Your task to perform on an android device: Search for flights from Zurich to Helsinki Image 0: 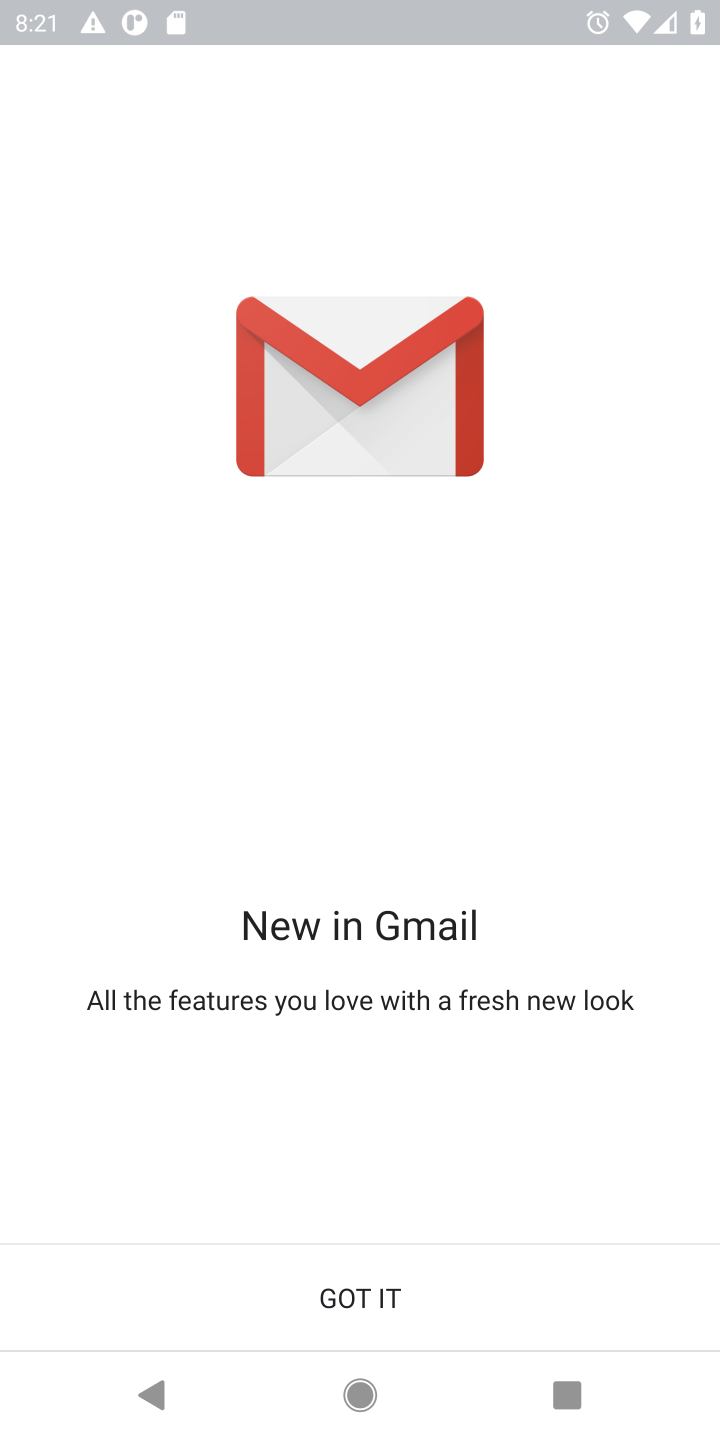
Step 0: press home button
Your task to perform on an android device: Search for flights from Zurich to Helsinki Image 1: 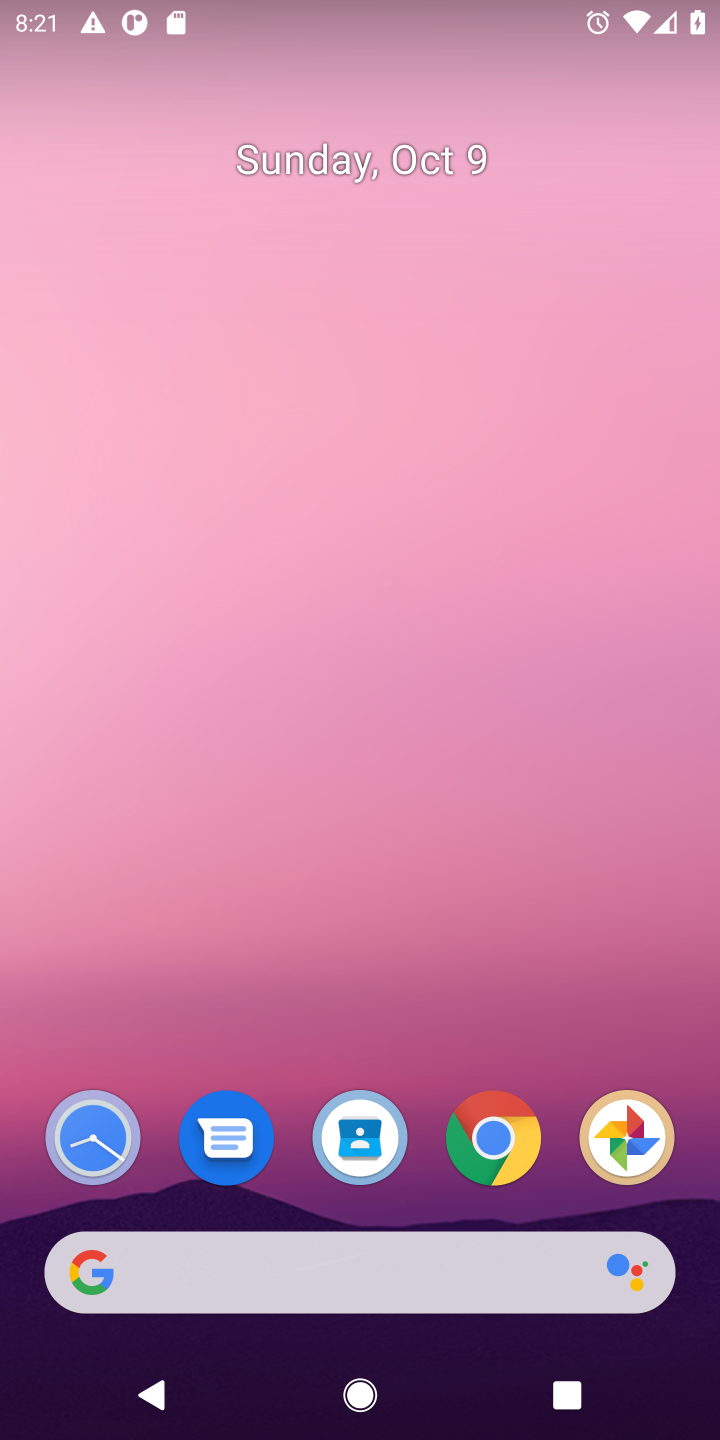
Step 1: drag from (374, 1009) to (370, 684)
Your task to perform on an android device: Search for flights from Zurich to Helsinki Image 2: 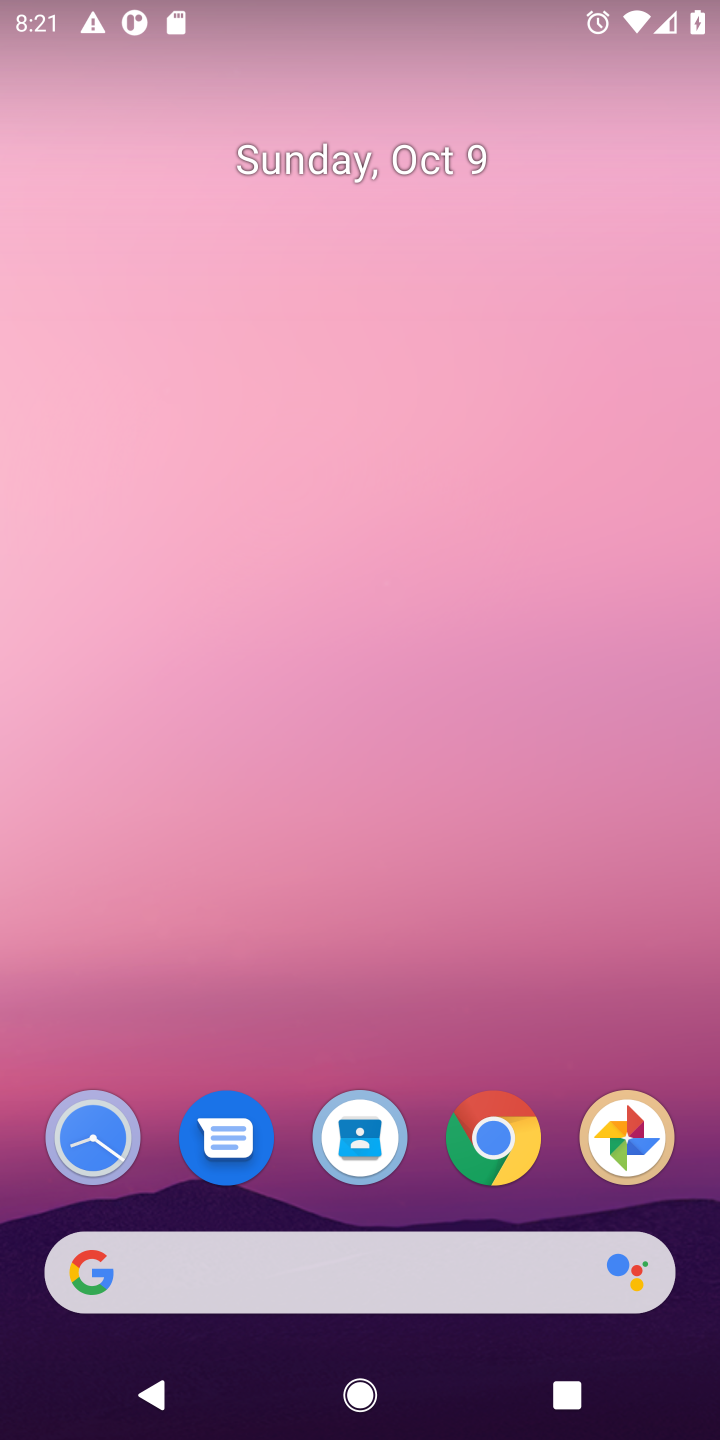
Step 2: drag from (367, 1053) to (372, 456)
Your task to perform on an android device: Search for flights from Zurich to Helsinki Image 3: 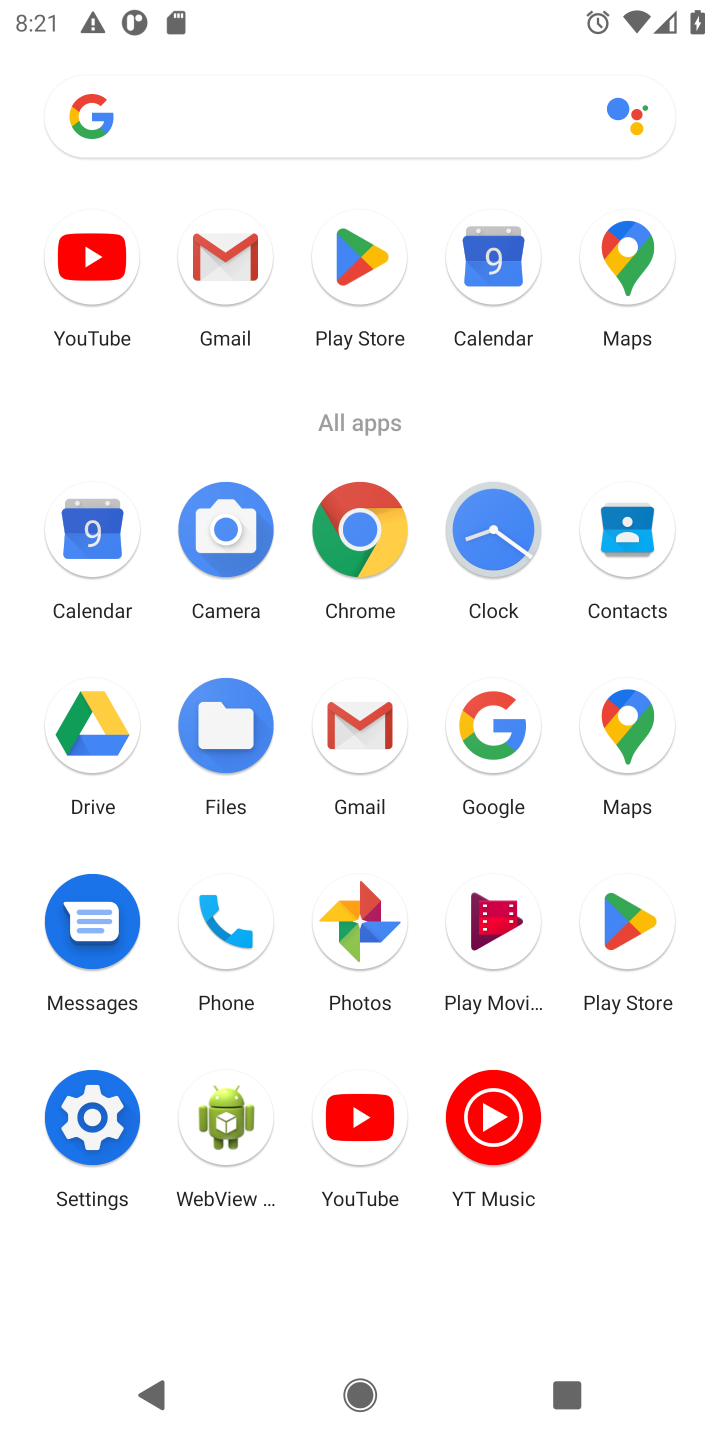
Step 3: click (484, 743)
Your task to perform on an android device: Search for flights from Zurich to Helsinki Image 4: 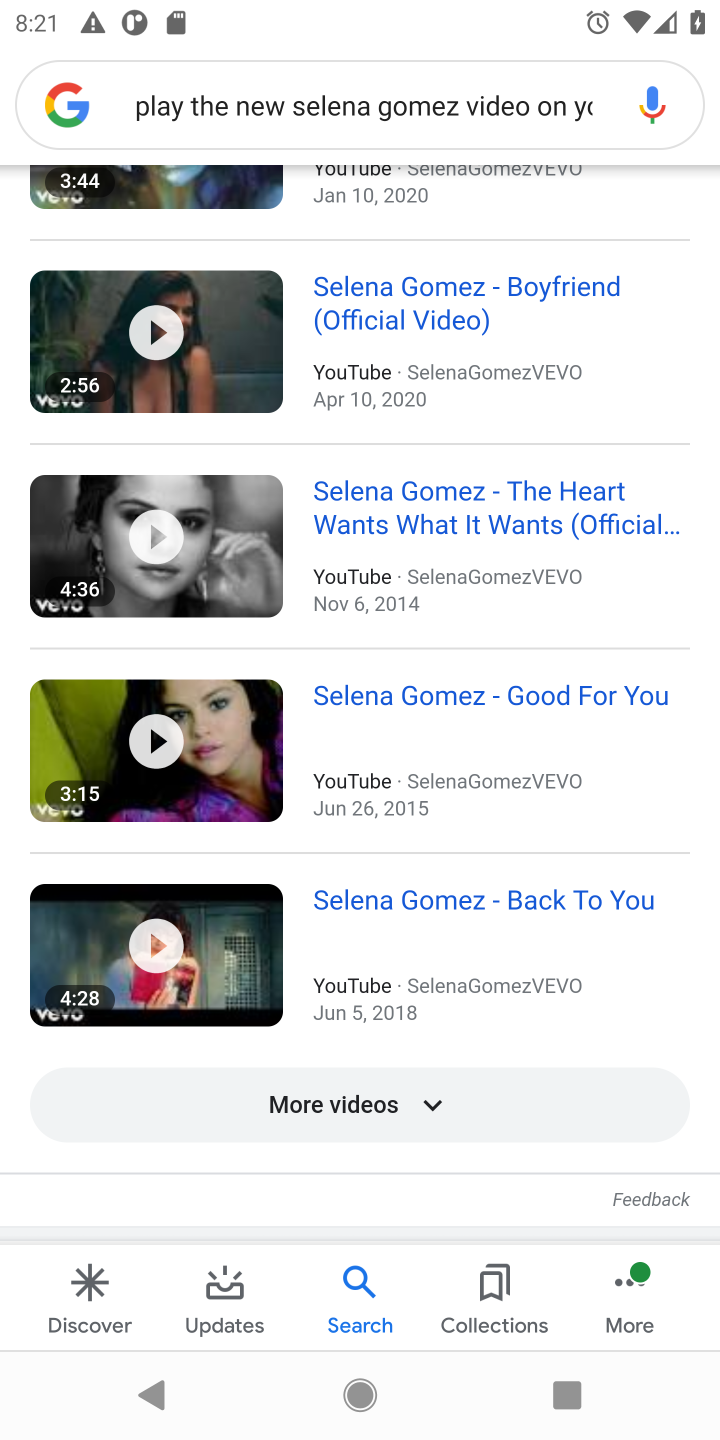
Step 4: click (490, 110)
Your task to perform on an android device: Search for flights from Zurich to Helsinki Image 5: 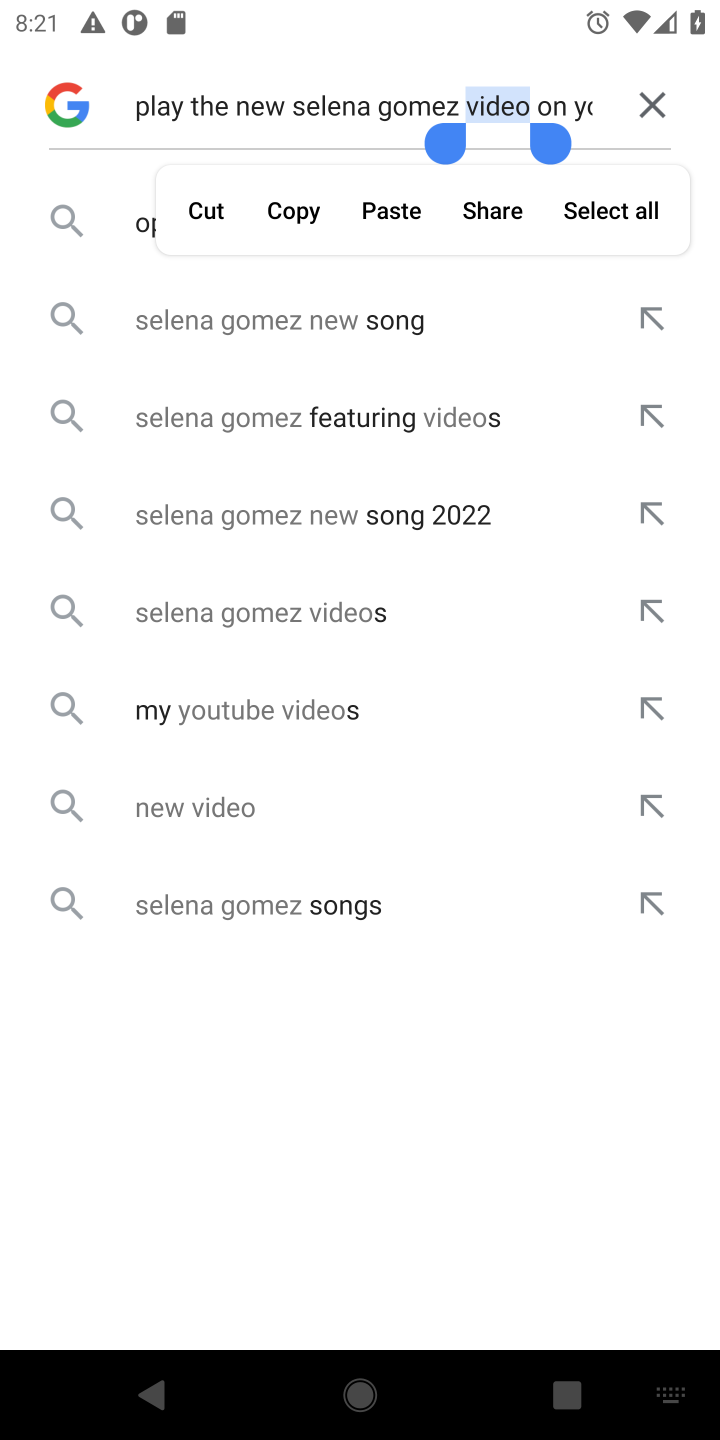
Step 5: click (633, 107)
Your task to perform on an android device: Search for flights from Zurich to Helsinki Image 6: 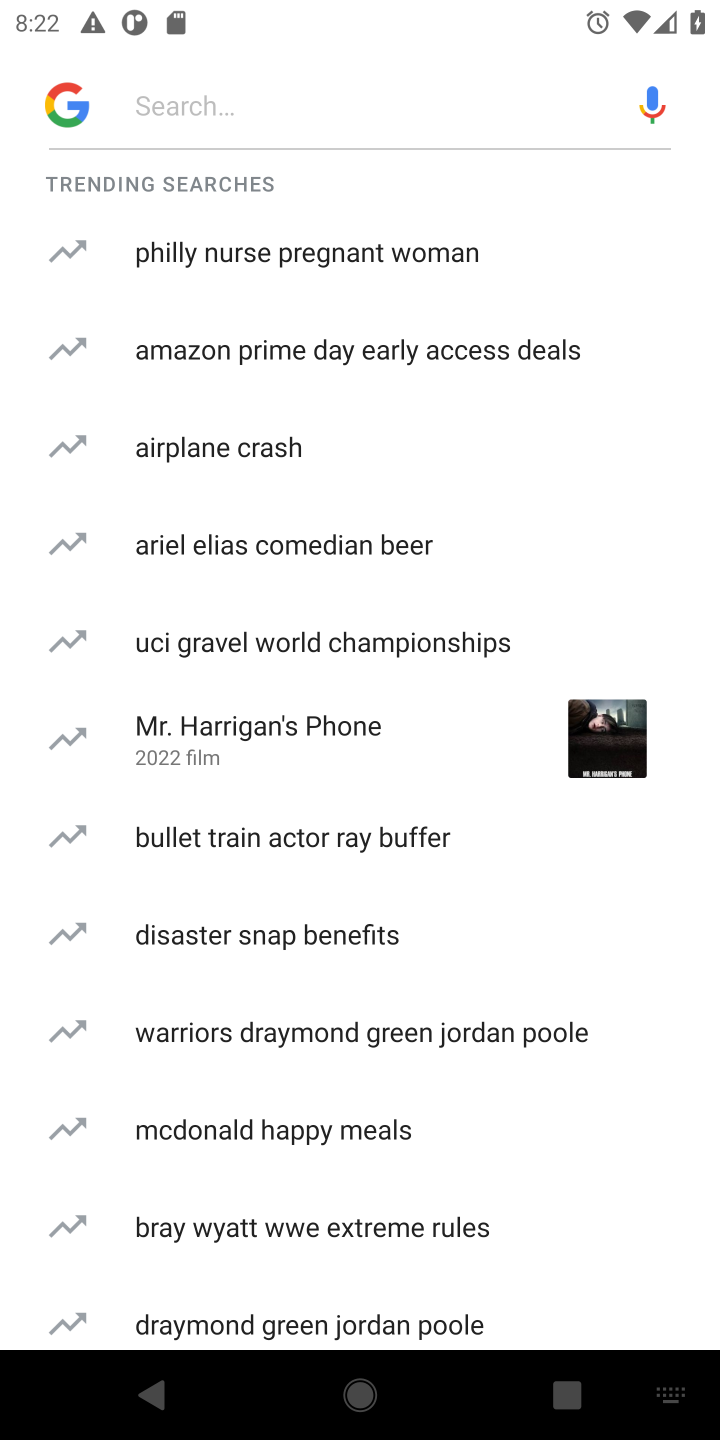
Step 6: click (302, 87)
Your task to perform on an android device: Search for flights from Zurich to Helsinki Image 7: 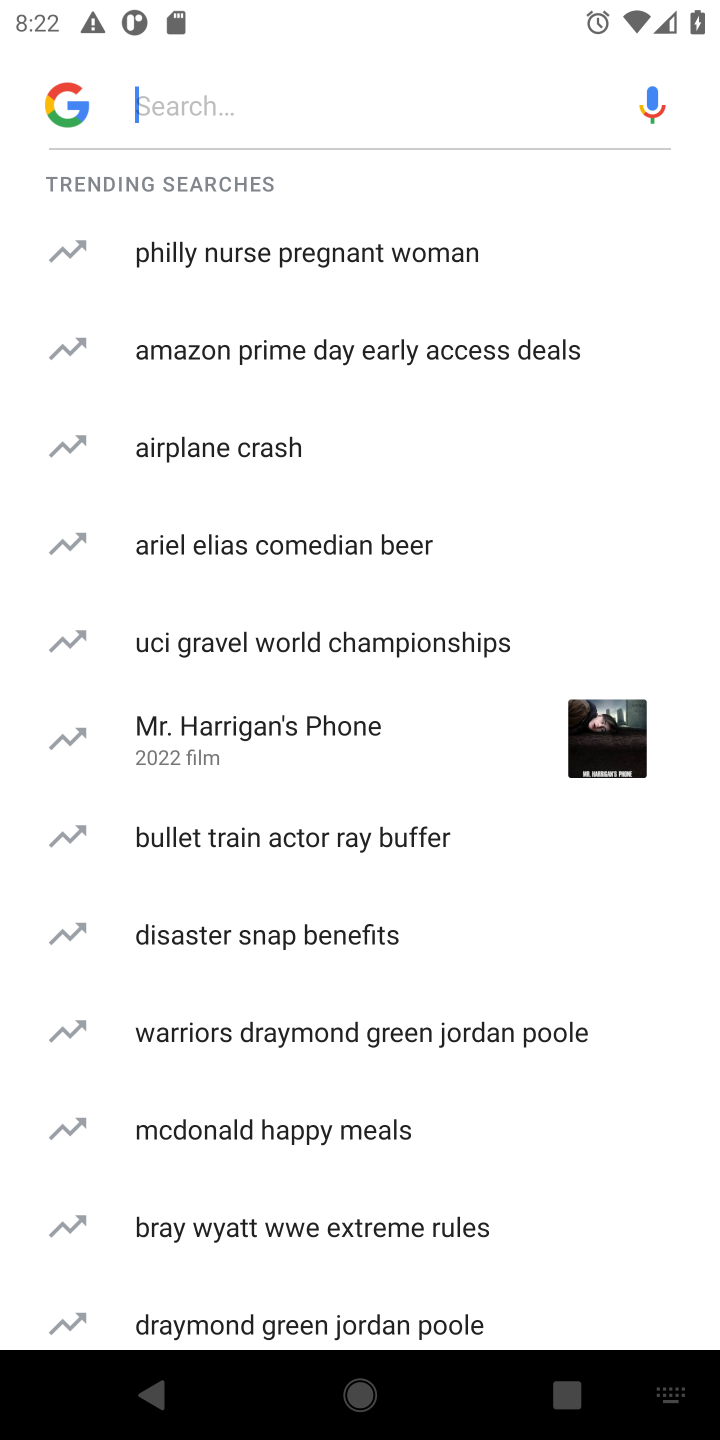
Step 7: type "Search for flights from Zurich to Helsinki "
Your task to perform on an android device: Search for flights from Zurich to Helsinki Image 8: 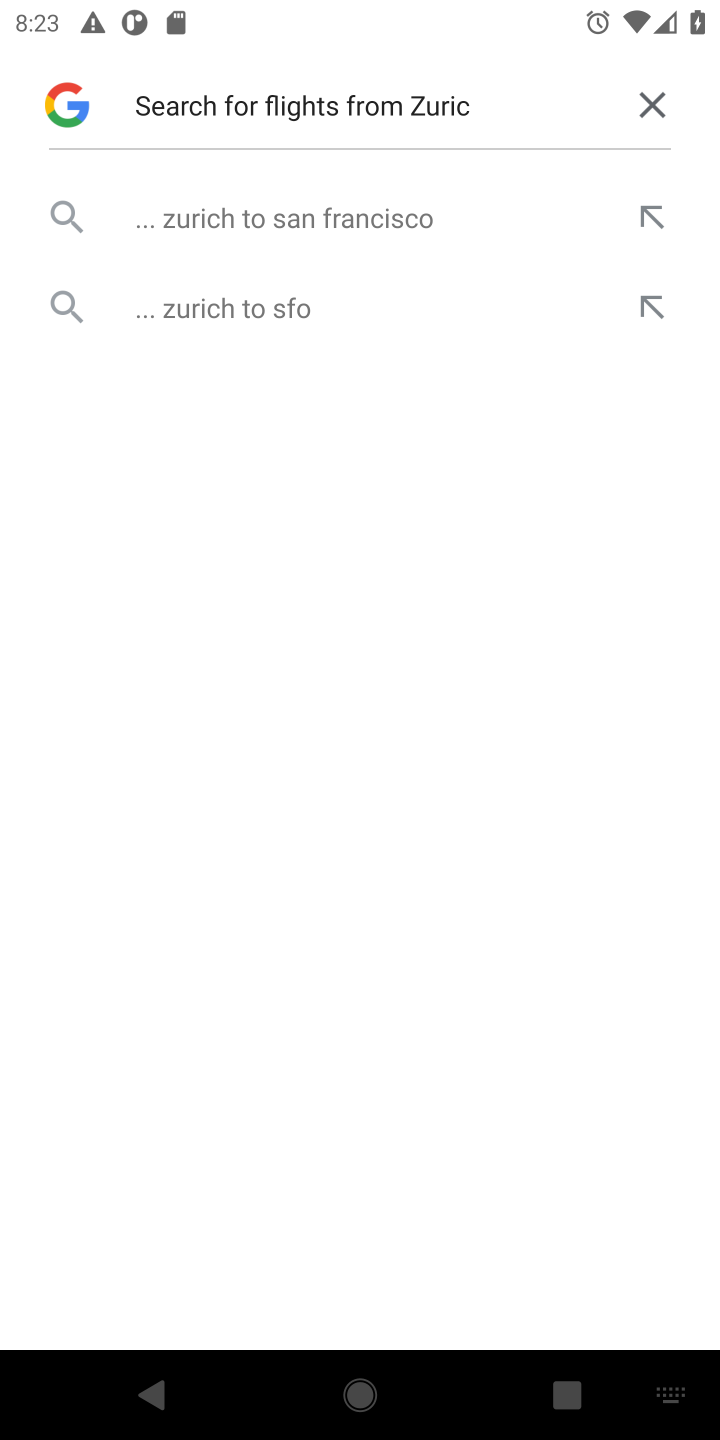
Step 8: click (666, 97)
Your task to perform on an android device: Search for flights from Zurich to Helsinki Image 9: 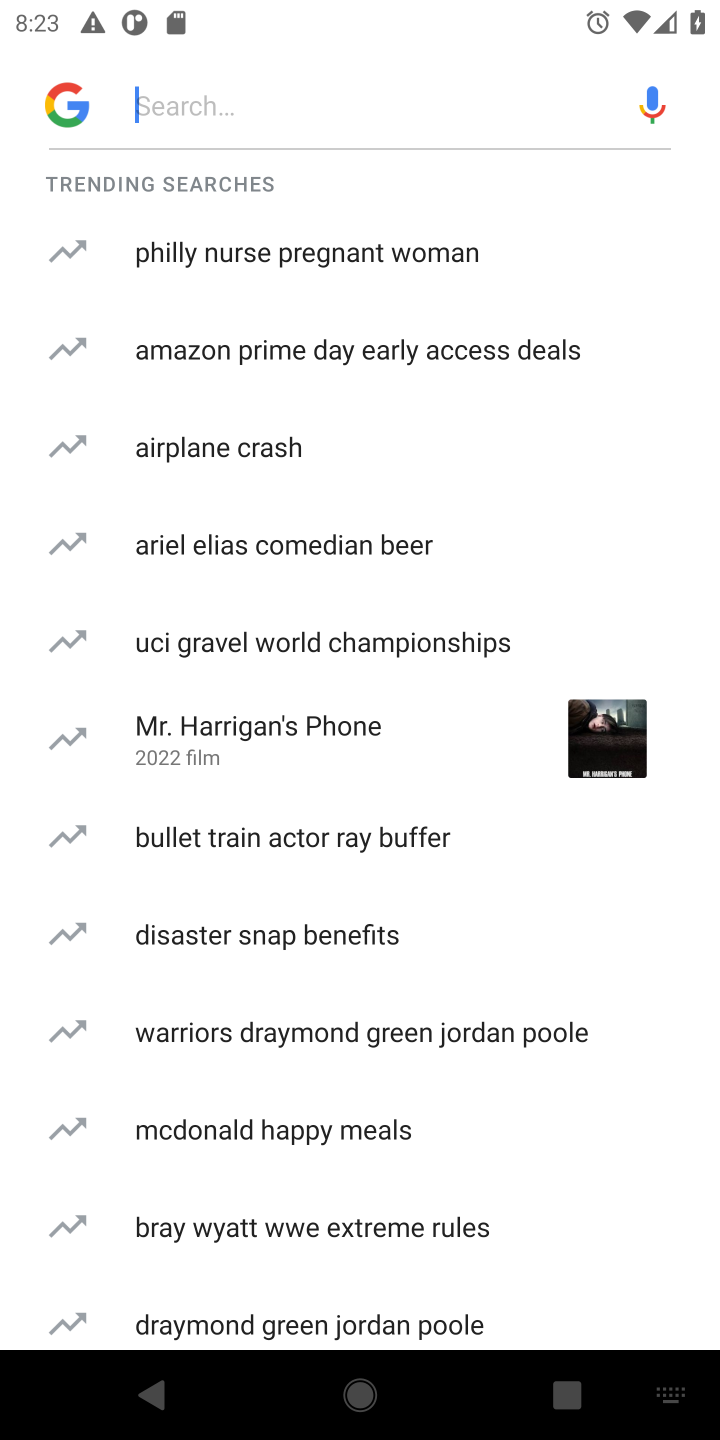
Step 9: click (321, 104)
Your task to perform on an android device: Search for flights from Zurich to Helsinki Image 10: 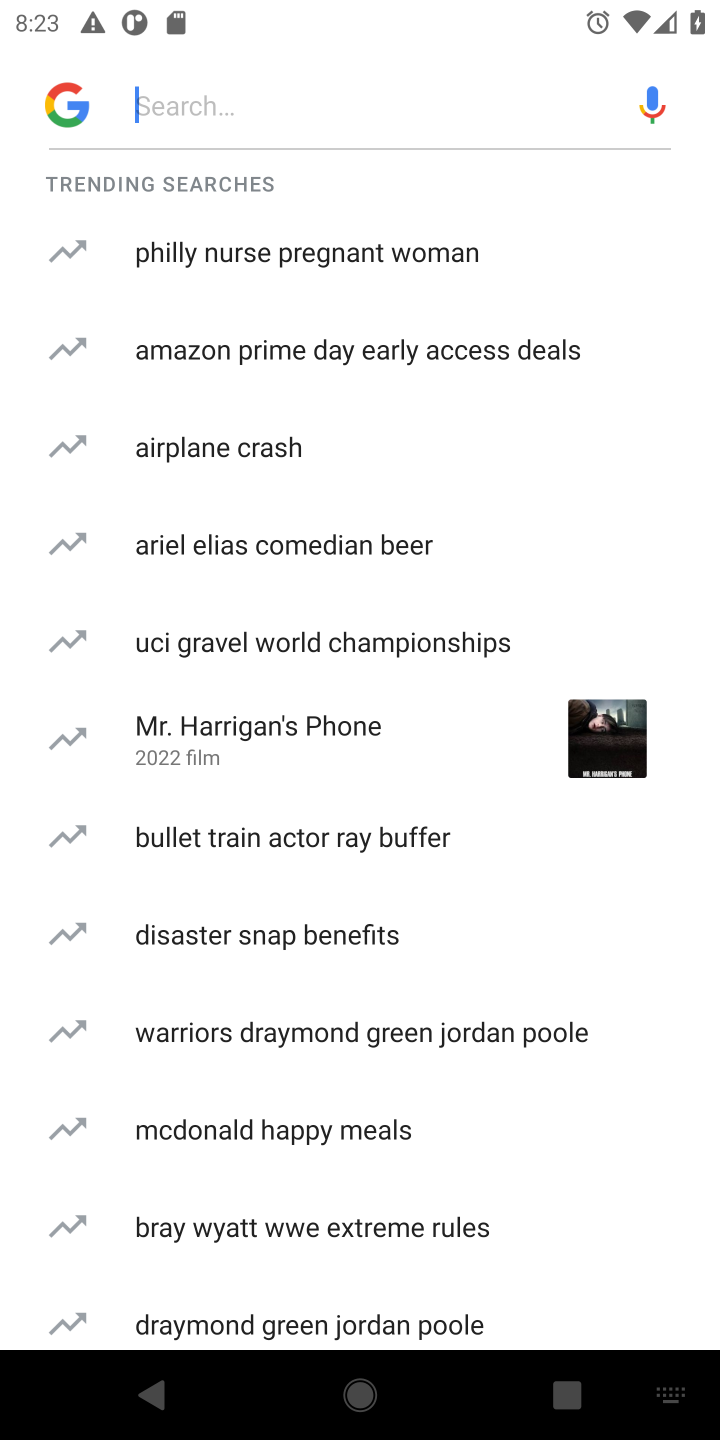
Step 10: type "Search for flights from Zurich to Helsinki "
Your task to perform on an android device: Search for flights from Zurich to Helsinki Image 11: 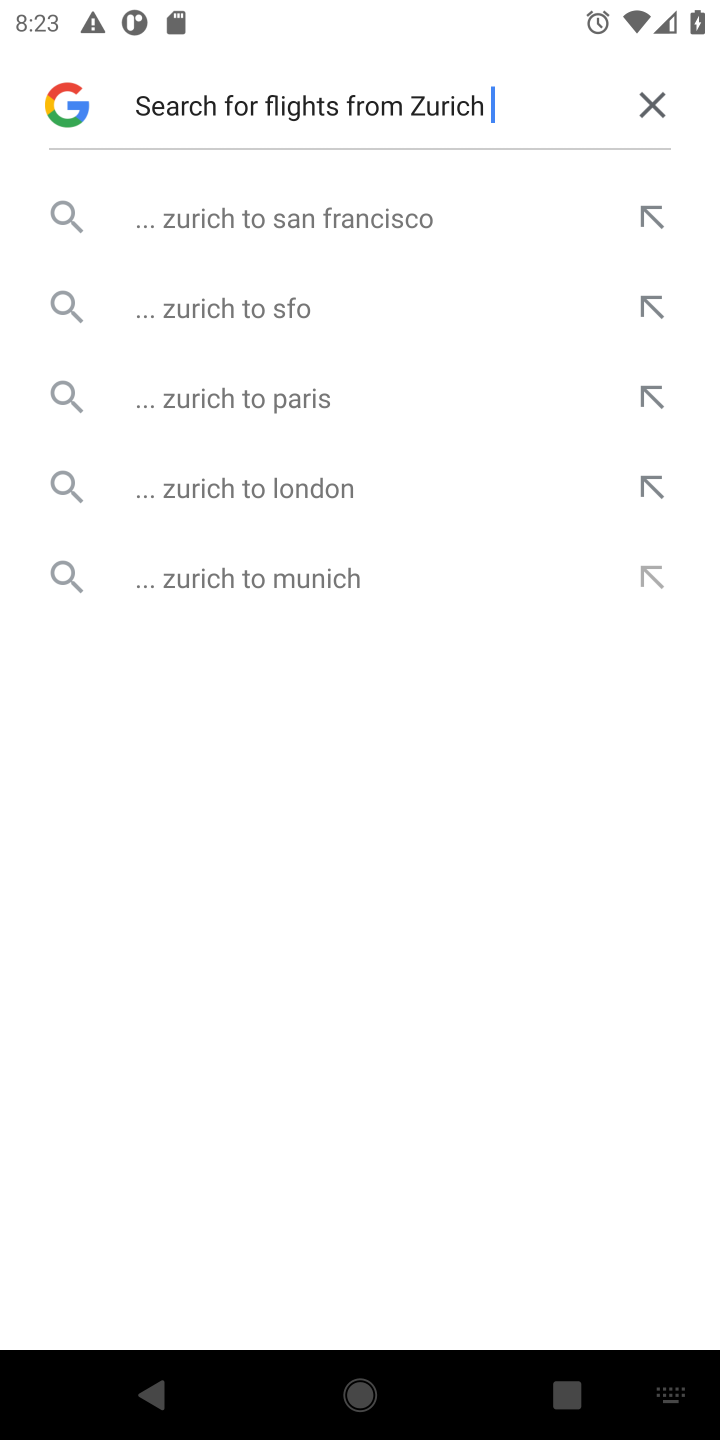
Step 11: click (344, 220)
Your task to perform on an android device: Search for flights from Zurich to Helsinki Image 12: 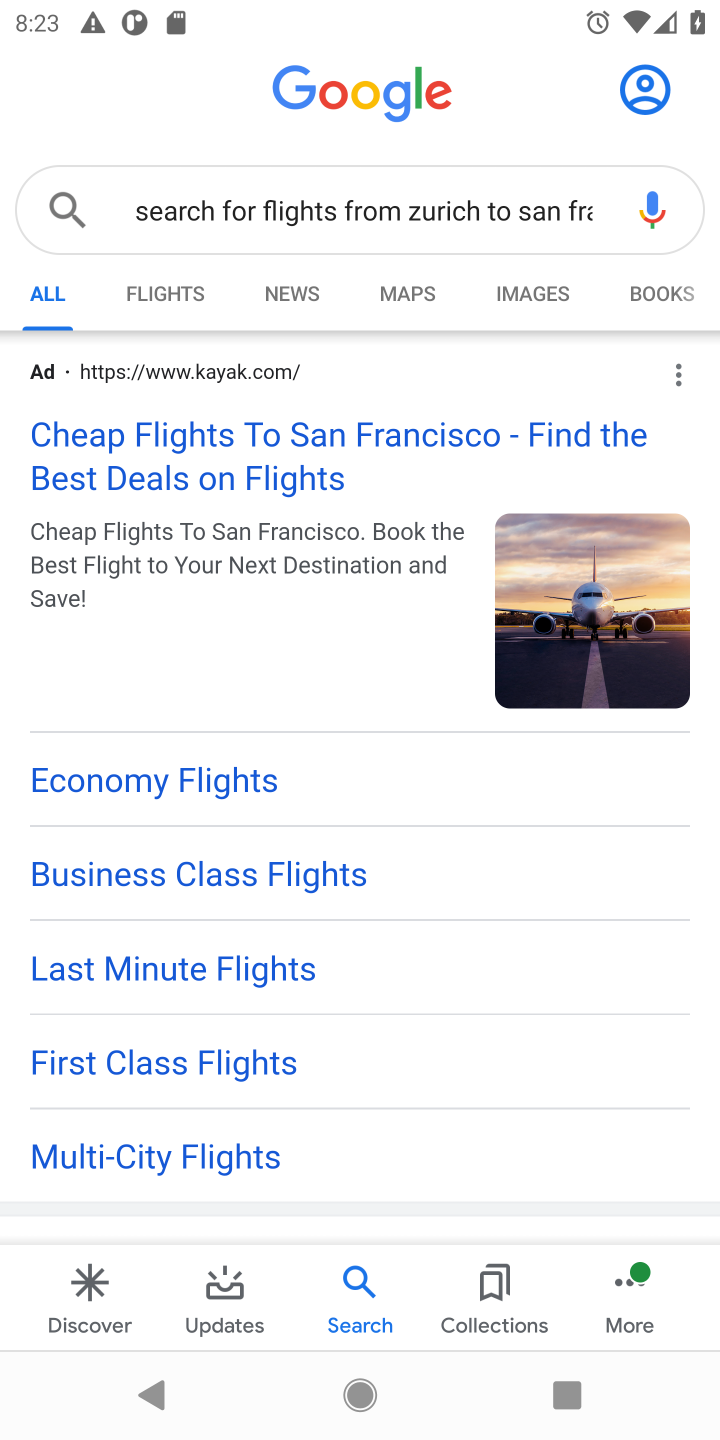
Step 12: drag from (415, 1110) to (459, 491)
Your task to perform on an android device: Search for flights from Zurich to Helsinki Image 13: 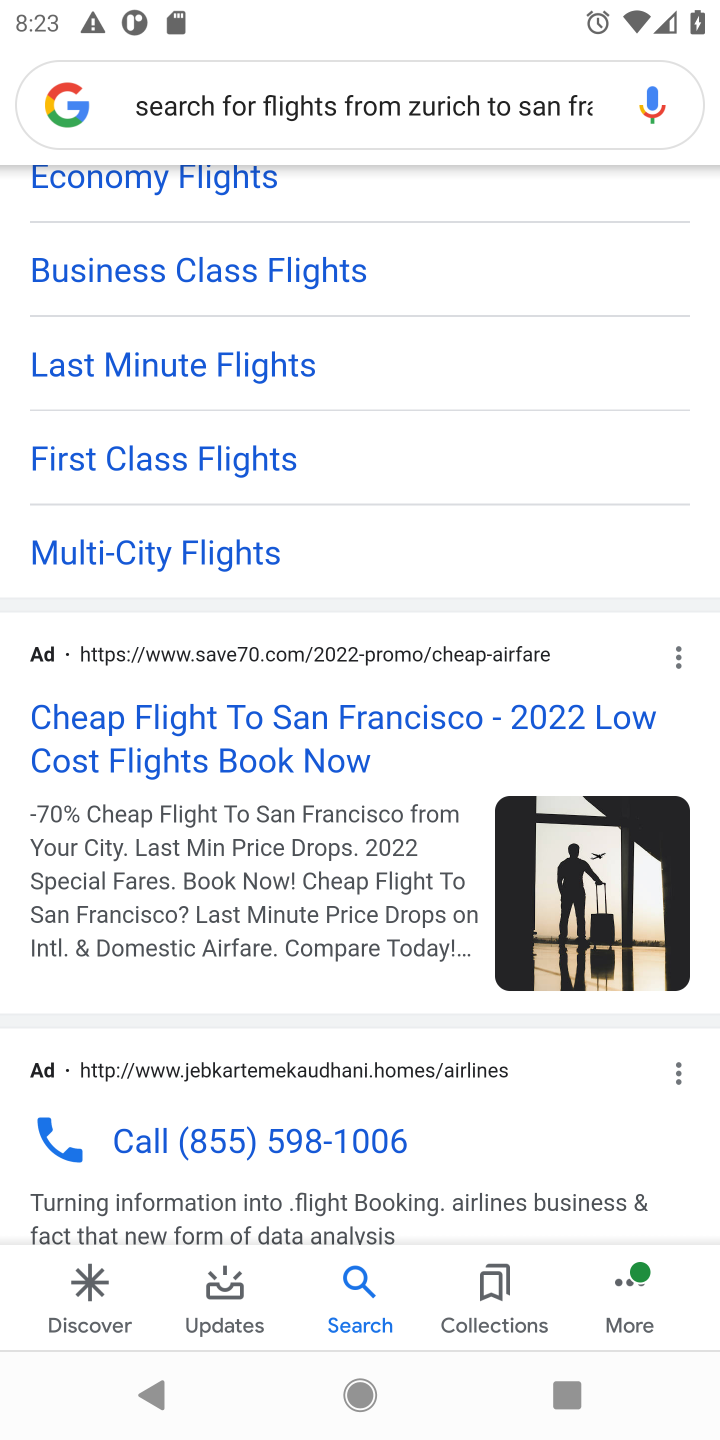
Step 13: click (536, 102)
Your task to perform on an android device: Search for flights from Zurich to Helsinki Image 14: 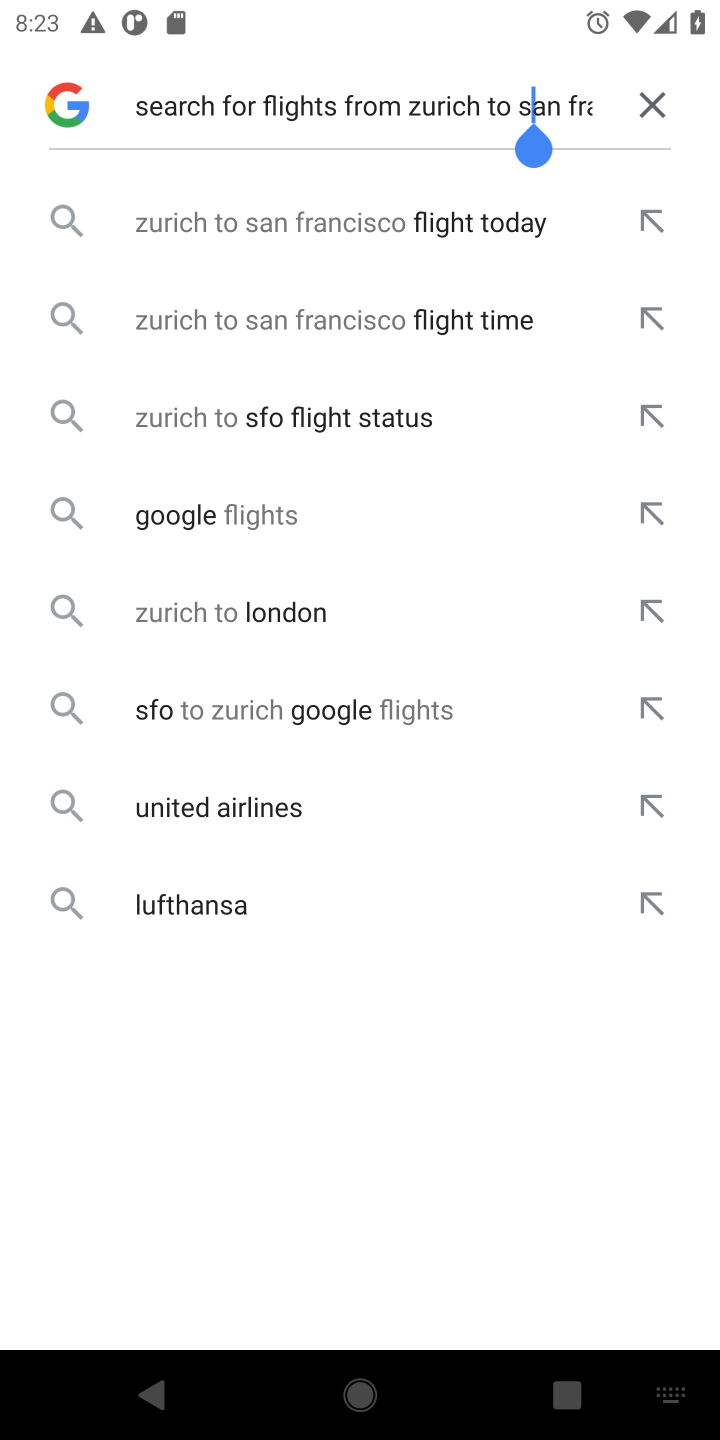
Step 14: click (639, 102)
Your task to perform on an android device: Search for flights from Zurich to Helsinki Image 15: 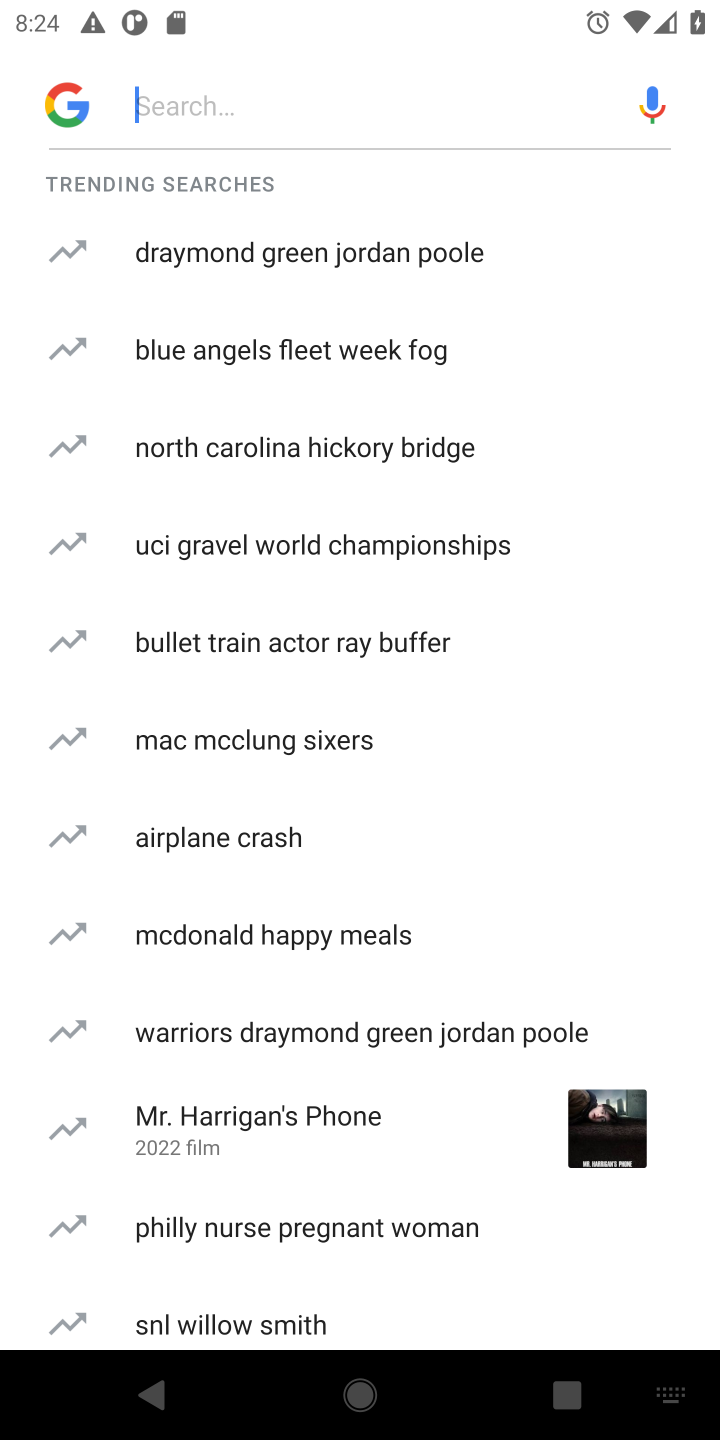
Step 15: click (276, 94)
Your task to perform on an android device: Search for flights from Zurich to Helsinki Image 16: 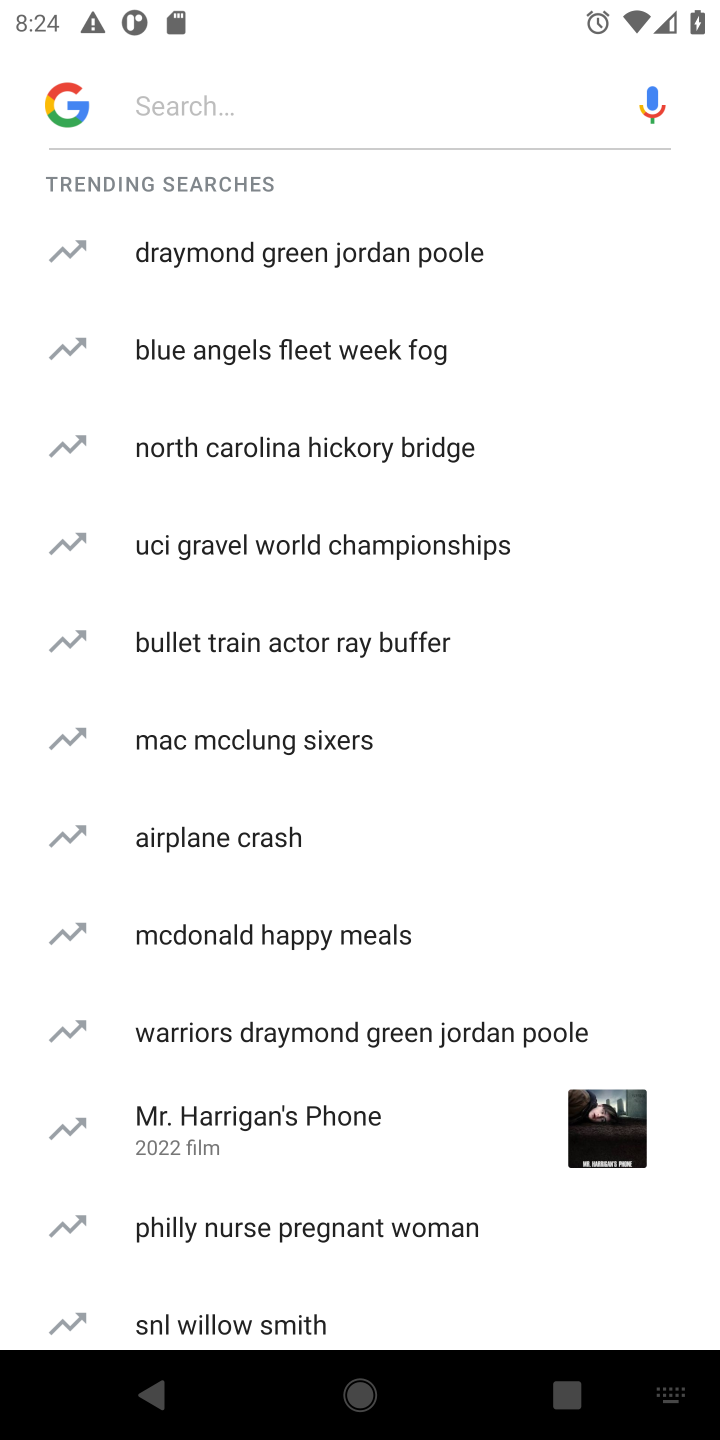
Step 16: type "Search for flights from Zurich to Helsinki "
Your task to perform on an android device: Search for flights from Zurich to Helsinki Image 17: 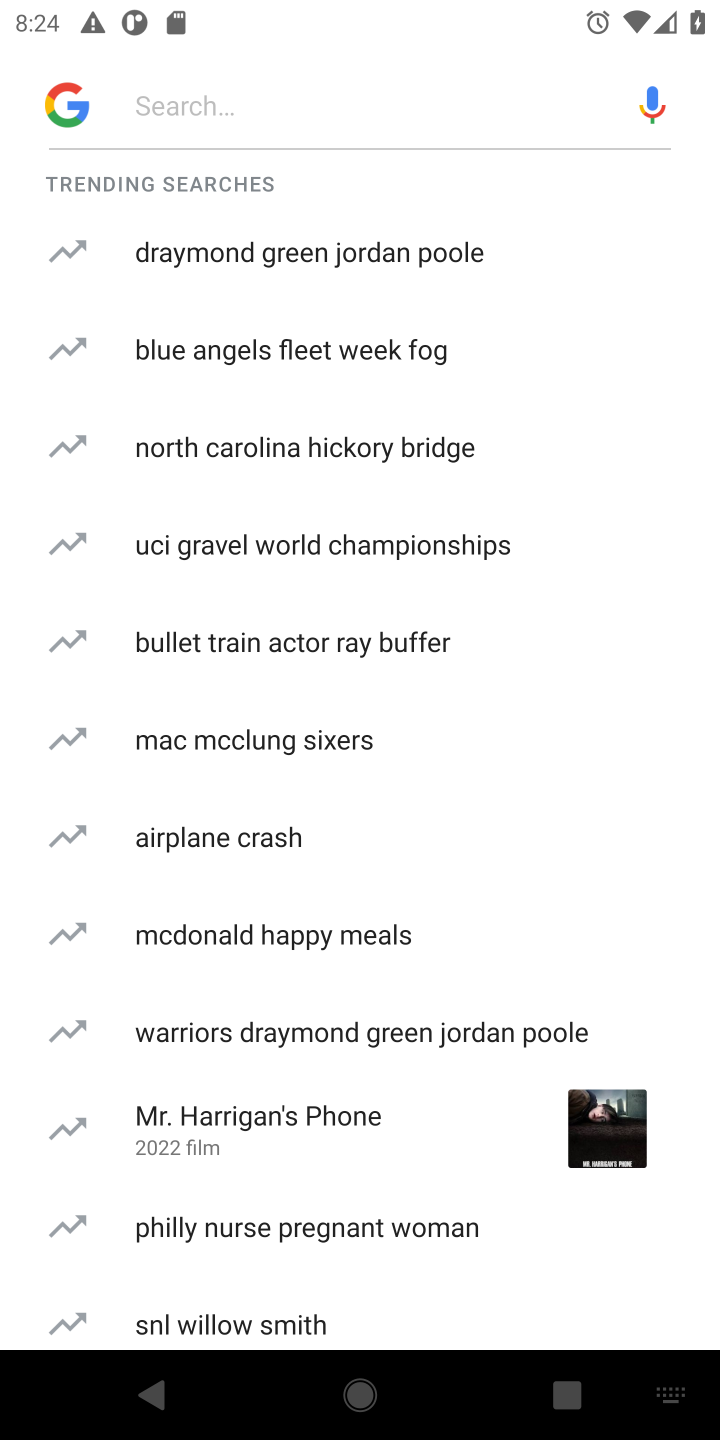
Step 17: click (265, 90)
Your task to perform on an android device: Search for flights from Zurich to Helsinki Image 18: 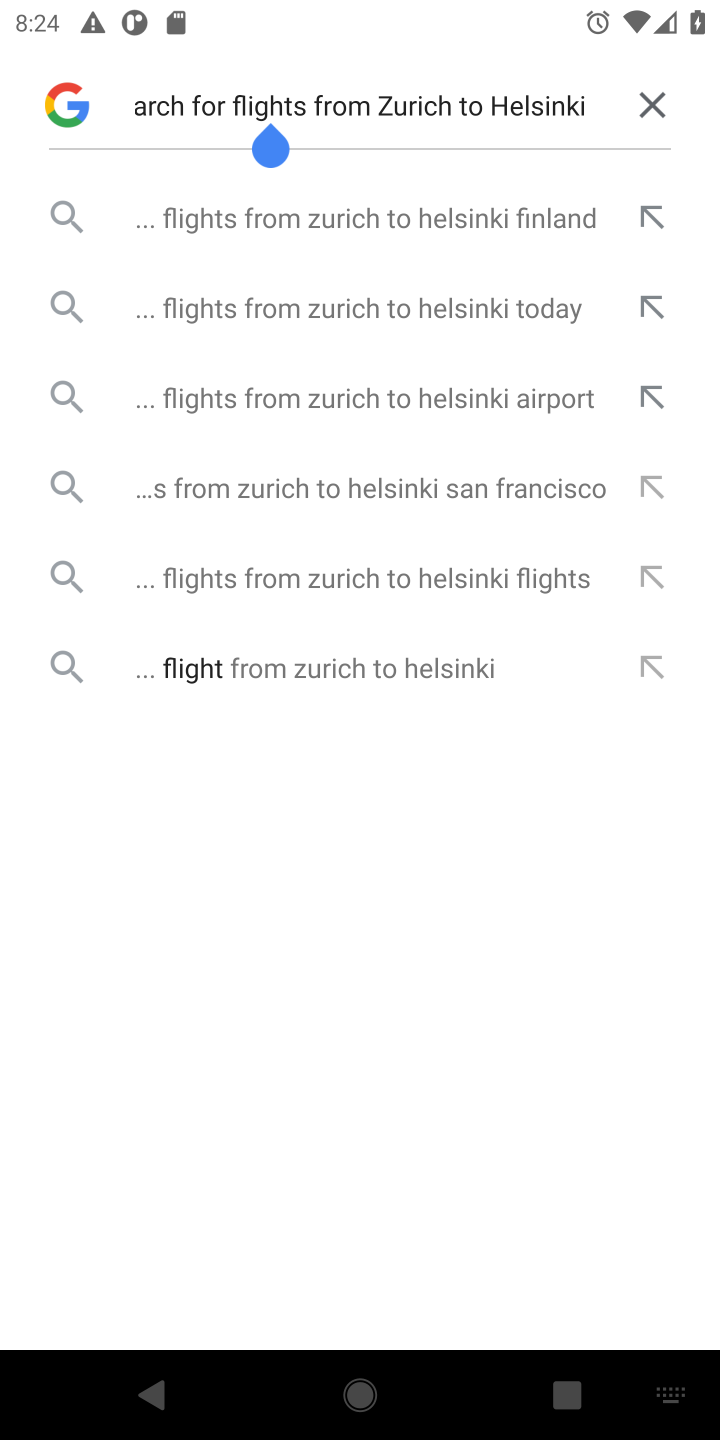
Step 18: click (386, 238)
Your task to perform on an android device: Search for flights from Zurich to Helsinki Image 19: 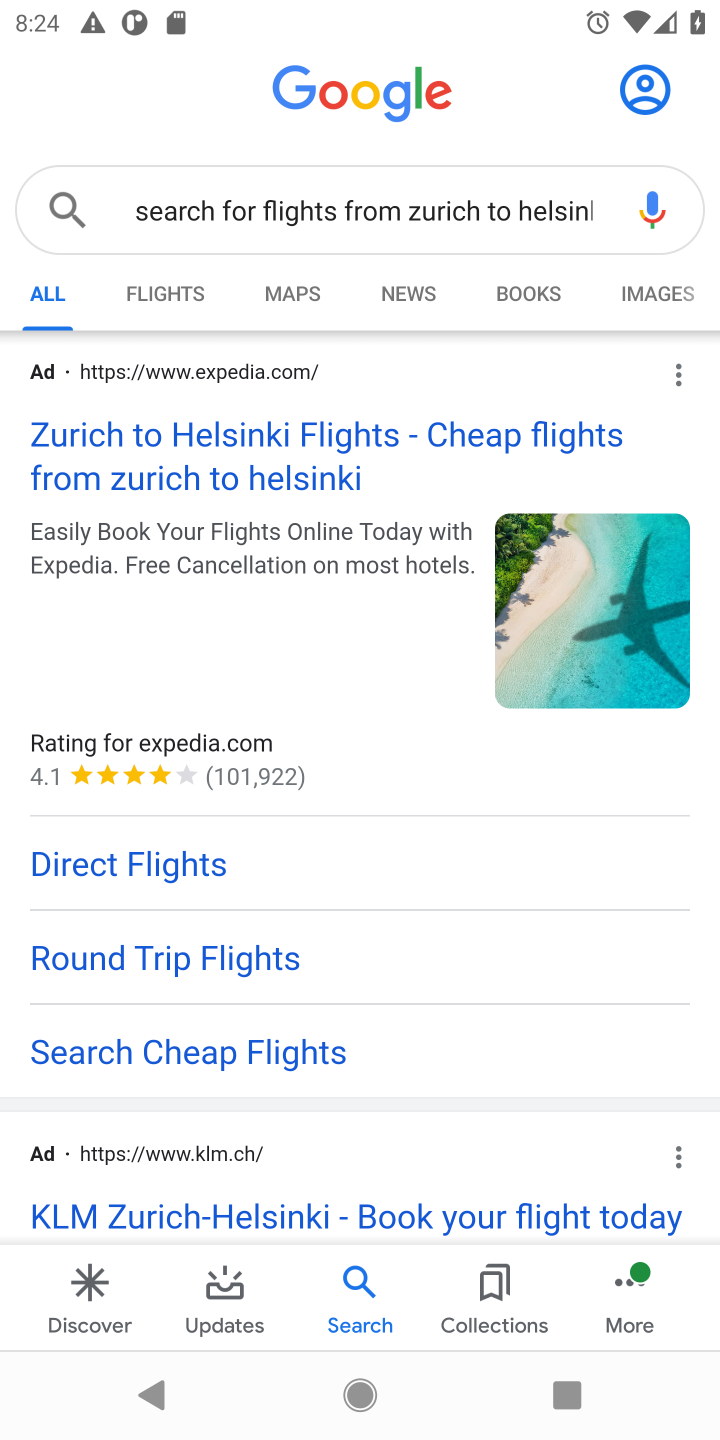
Step 19: task complete